Your task to perform on an android device: Open notification settings Image 0: 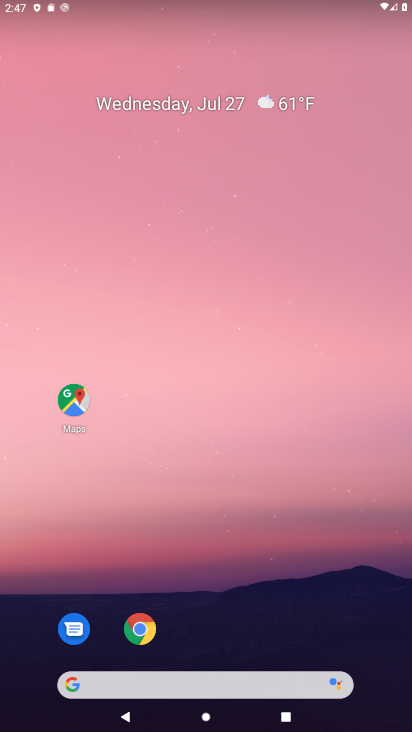
Step 0: click (227, 94)
Your task to perform on an android device: Open notification settings Image 1: 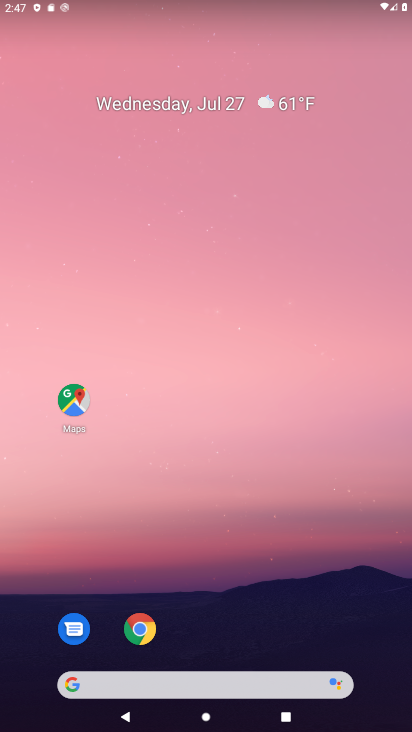
Step 1: drag from (336, 623) to (248, 76)
Your task to perform on an android device: Open notification settings Image 2: 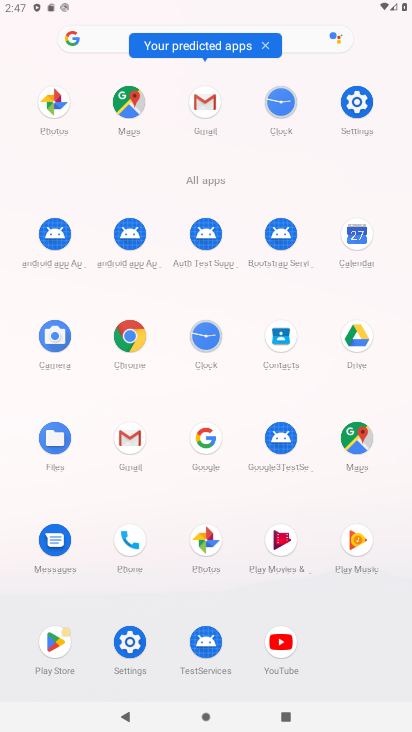
Step 2: click (358, 108)
Your task to perform on an android device: Open notification settings Image 3: 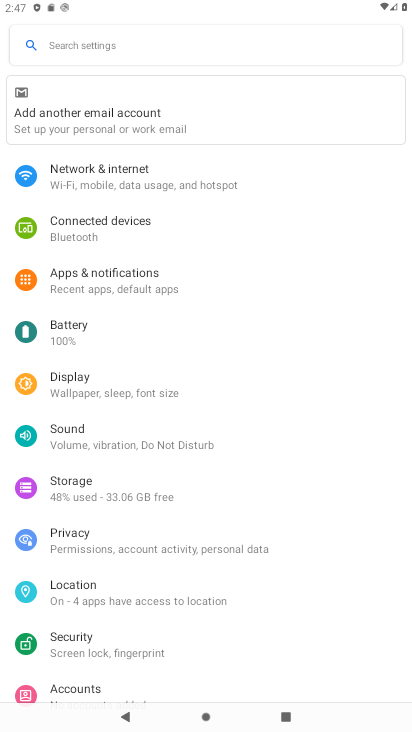
Step 3: click (177, 285)
Your task to perform on an android device: Open notification settings Image 4: 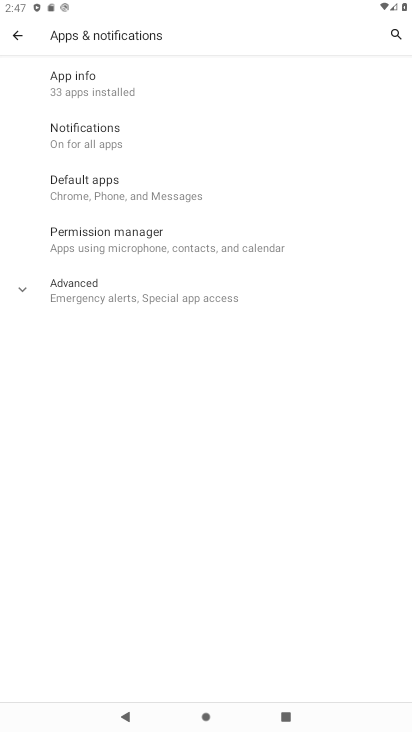
Step 4: click (102, 129)
Your task to perform on an android device: Open notification settings Image 5: 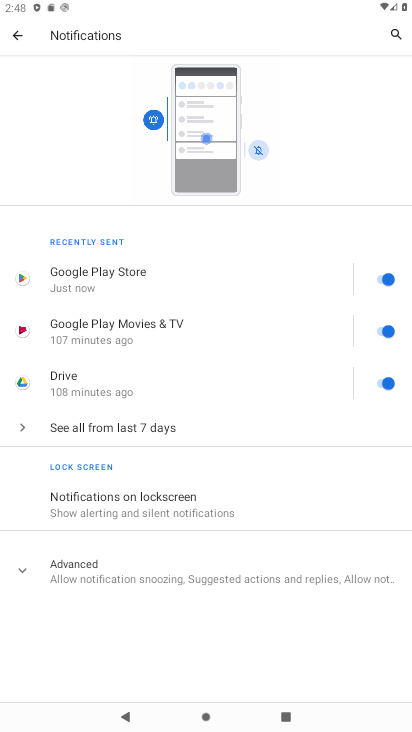
Step 5: task complete